Your task to perform on an android device: Open settings Image 0: 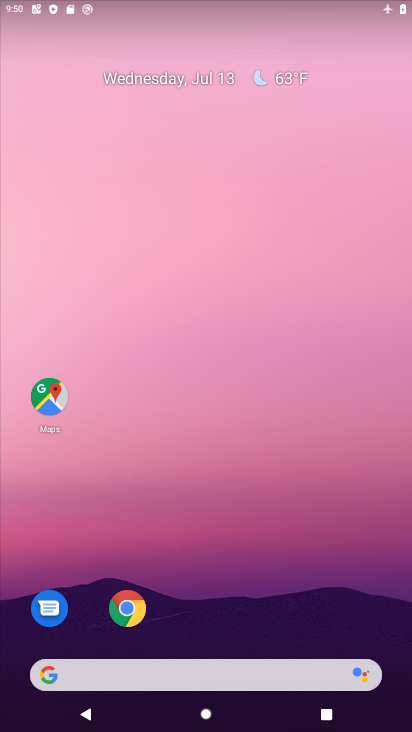
Step 0: drag from (209, 654) to (245, 199)
Your task to perform on an android device: Open settings Image 1: 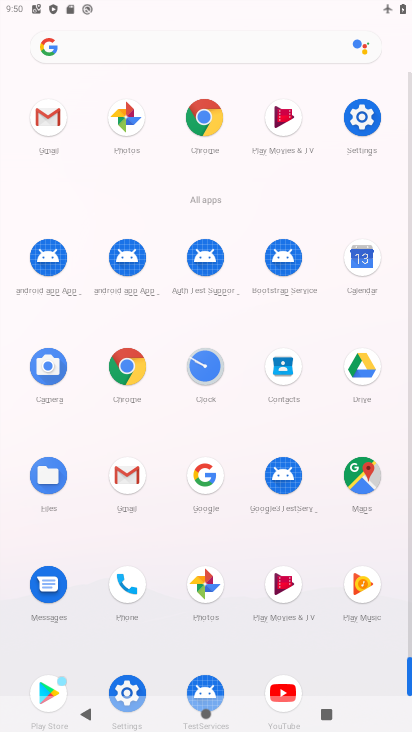
Step 1: click (365, 120)
Your task to perform on an android device: Open settings Image 2: 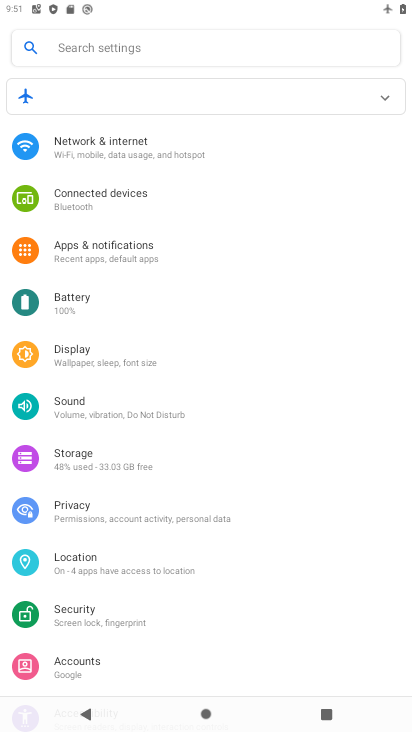
Step 2: task complete